Your task to perform on an android device: Is it going to rain today? Image 0: 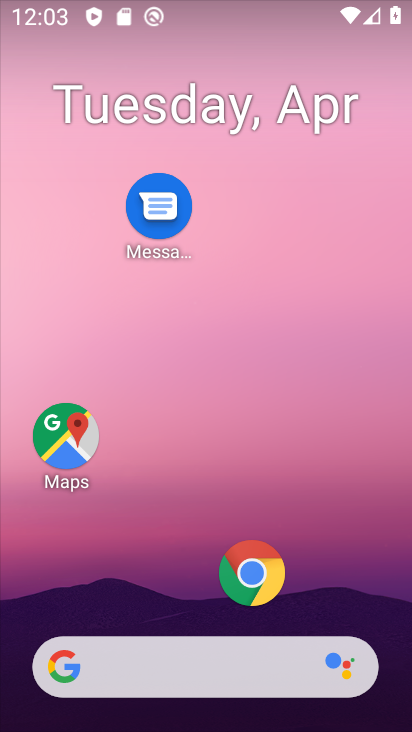
Step 0: click (198, 668)
Your task to perform on an android device: Is it going to rain today? Image 1: 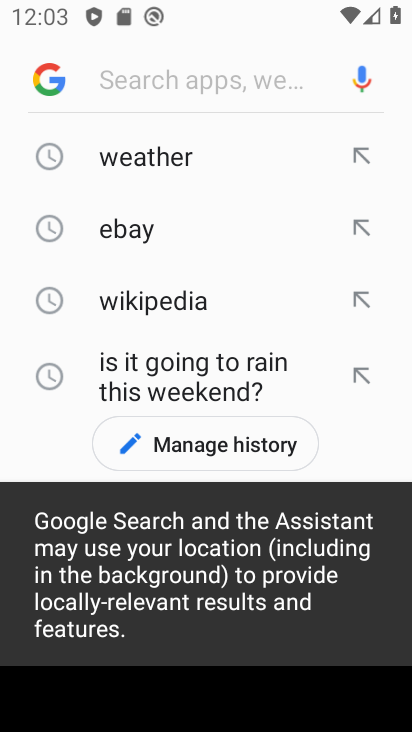
Step 1: click (160, 158)
Your task to perform on an android device: Is it going to rain today? Image 2: 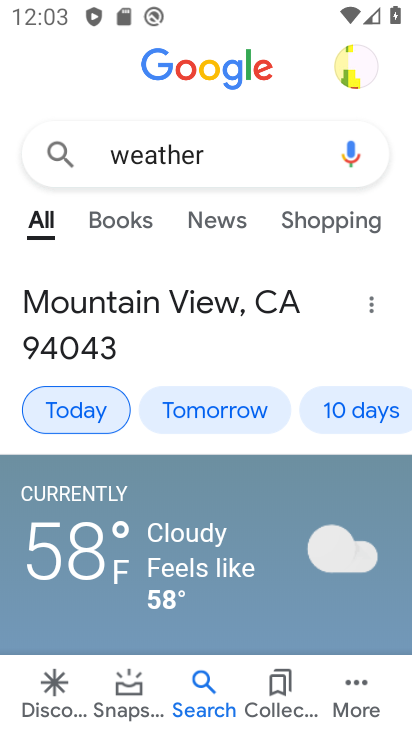
Step 2: task complete